Your task to perform on an android device: delete browsing data in the chrome app Image 0: 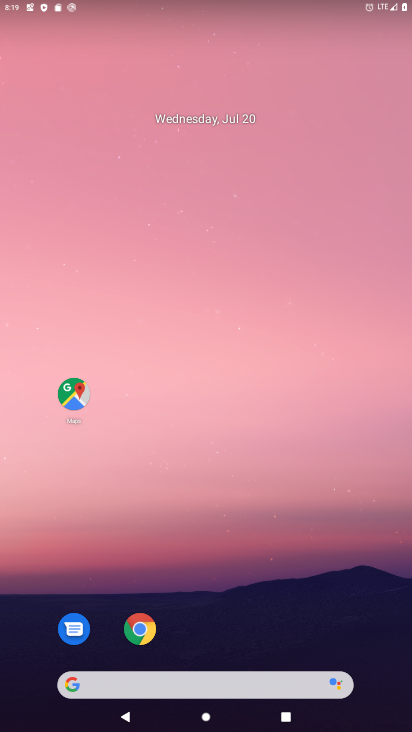
Step 0: click (139, 637)
Your task to perform on an android device: delete browsing data in the chrome app Image 1: 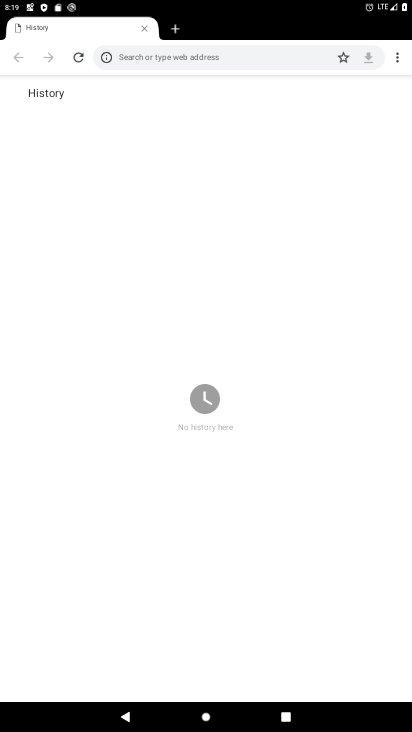
Step 1: click (399, 54)
Your task to perform on an android device: delete browsing data in the chrome app Image 2: 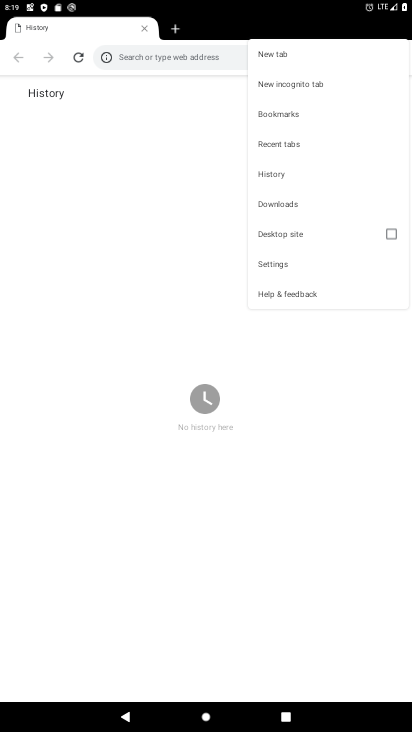
Step 2: click (262, 174)
Your task to perform on an android device: delete browsing data in the chrome app Image 3: 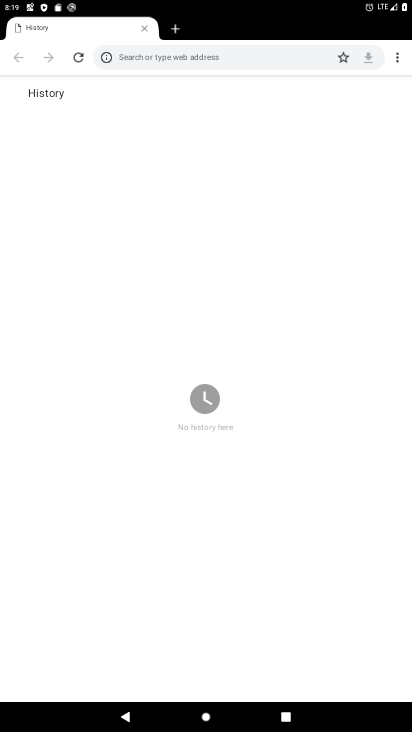
Step 3: task complete